Your task to perform on an android device: make emails show in primary in the gmail app Image 0: 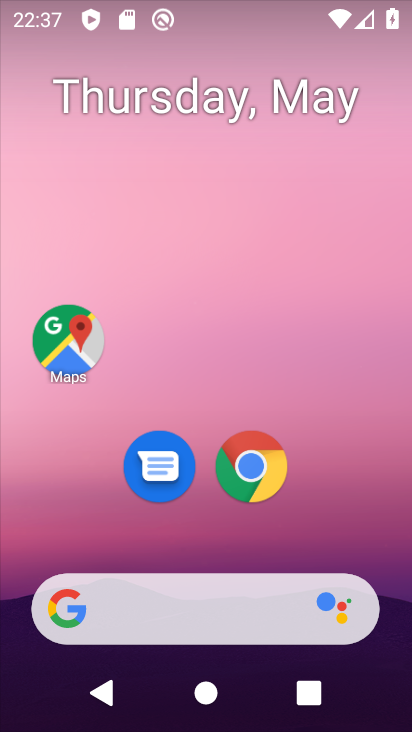
Step 0: drag from (343, 484) to (312, 42)
Your task to perform on an android device: make emails show in primary in the gmail app Image 1: 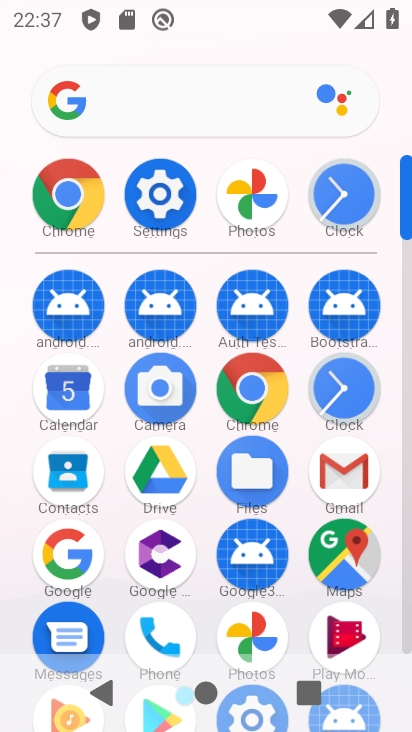
Step 1: click (350, 483)
Your task to perform on an android device: make emails show in primary in the gmail app Image 2: 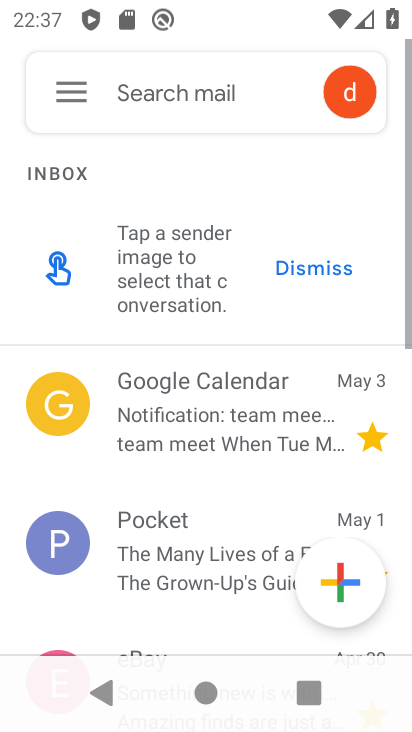
Step 2: click (72, 90)
Your task to perform on an android device: make emails show in primary in the gmail app Image 3: 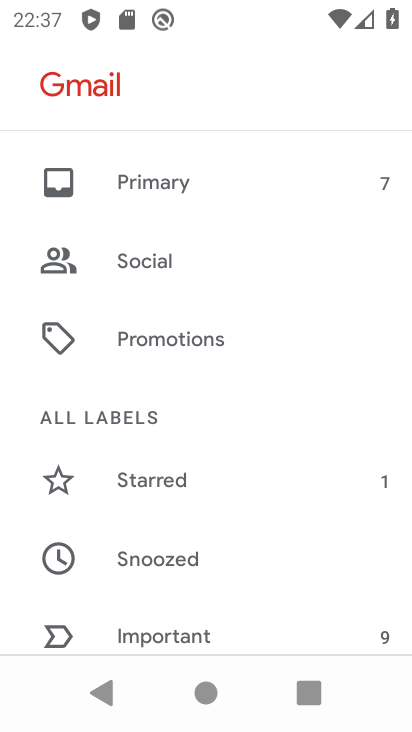
Step 3: drag from (205, 588) to (346, 111)
Your task to perform on an android device: make emails show in primary in the gmail app Image 4: 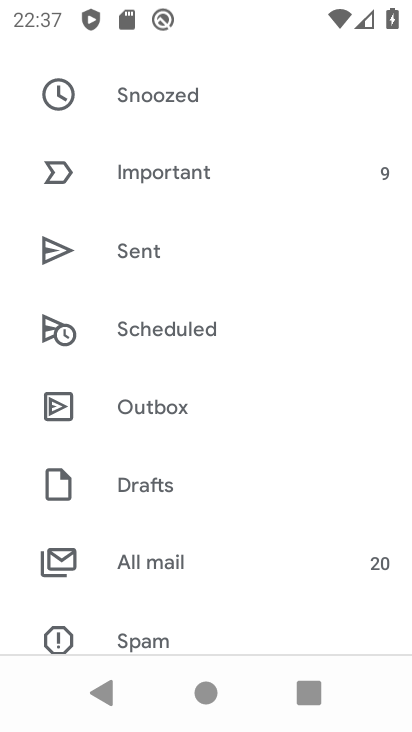
Step 4: drag from (186, 554) to (277, 154)
Your task to perform on an android device: make emails show in primary in the gmail app Image 5: 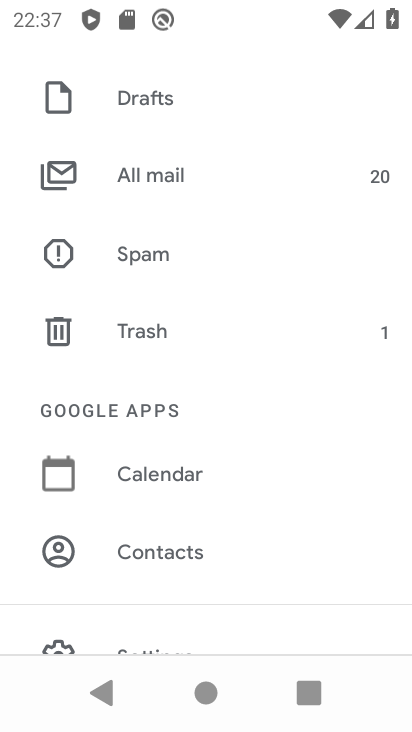
Step 5: drag from (179, 525) to (257, 346)
Your task to perform on an android device: make emails show in primary in the gmail app Image 6: 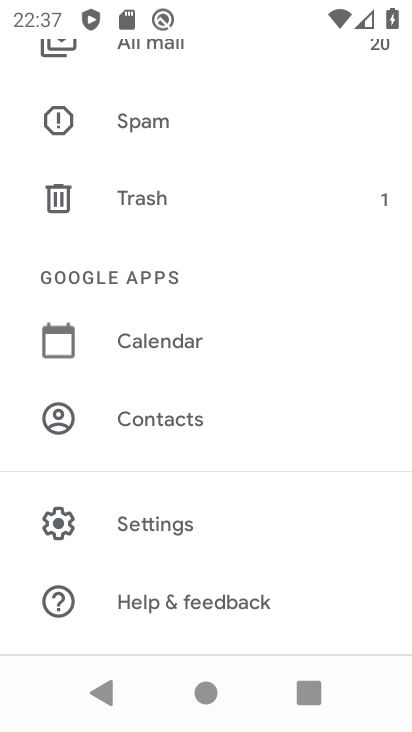
Step 6: click (156, 546)
Your task to perform on an android device: make emails show in primary in the gmail app Image 7: 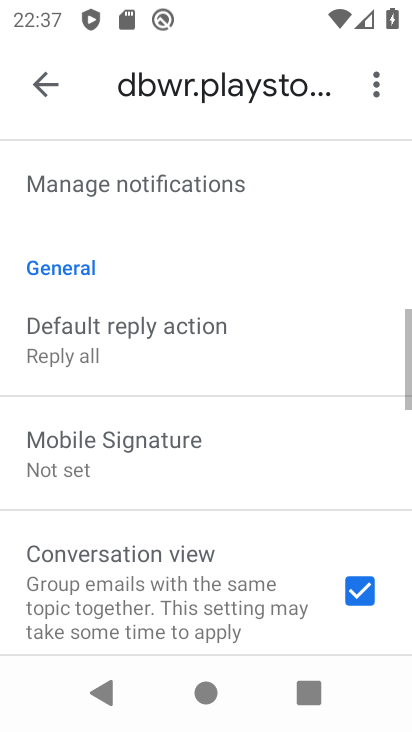
Step 7: drag from (166, 586) to (320, 717)
Your task to perform on an android device: make emails show in primary in the gmail app Image 8: 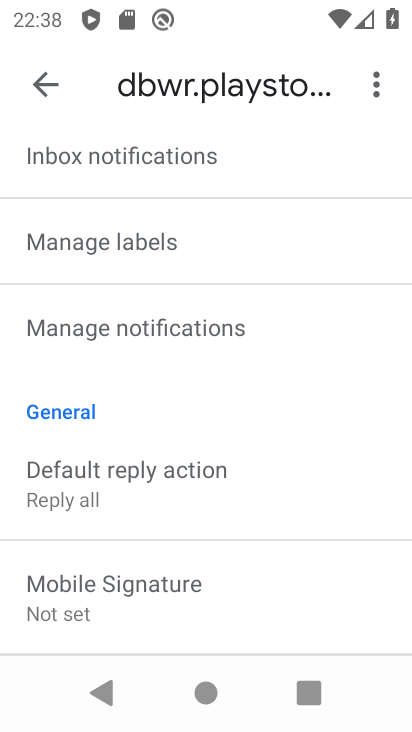
Step 8: drag from (176, 355) to (183, 727)
Your task to perform on an android device: make emails show in primary in the gmail app Image 9: 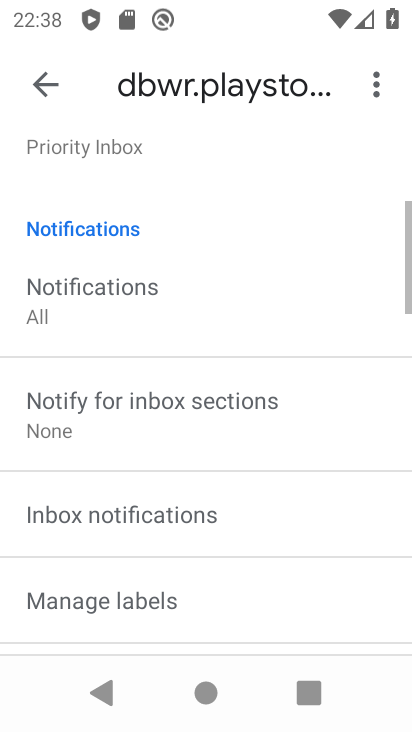
Step 9: drag from (222, 272) to (234, 663)
Your task to perform on an android device: make emails show in primary in the gmail app Image 10: 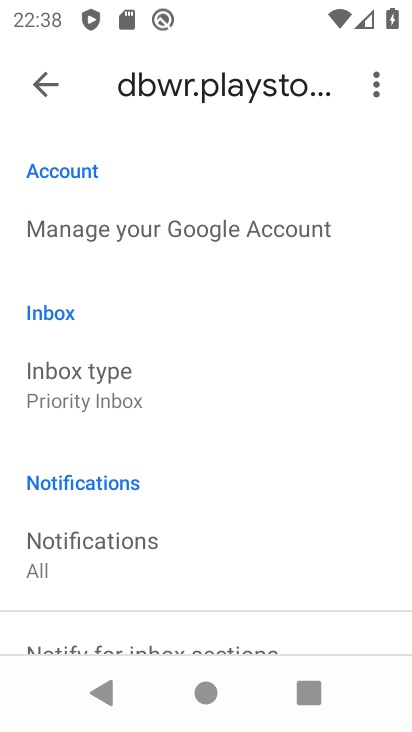
Step 10: click (124, 381)
Your task to perform on an android device: make emails show in primary in the gmail app Image 11: 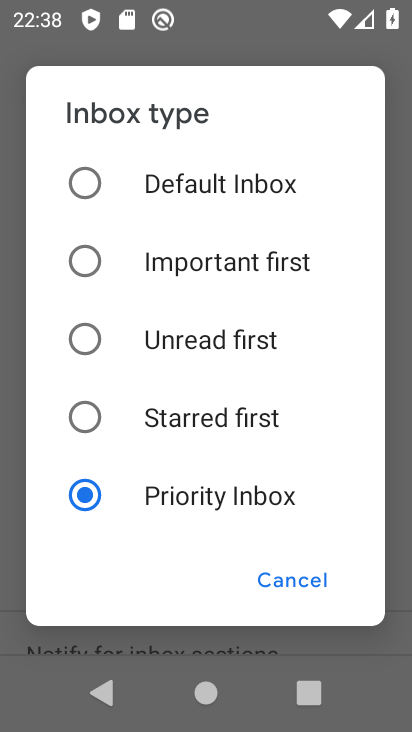
Step 11: click (172, 187)
Your task to perform on an android device: make emails show in primary in the gmail app Image 12: 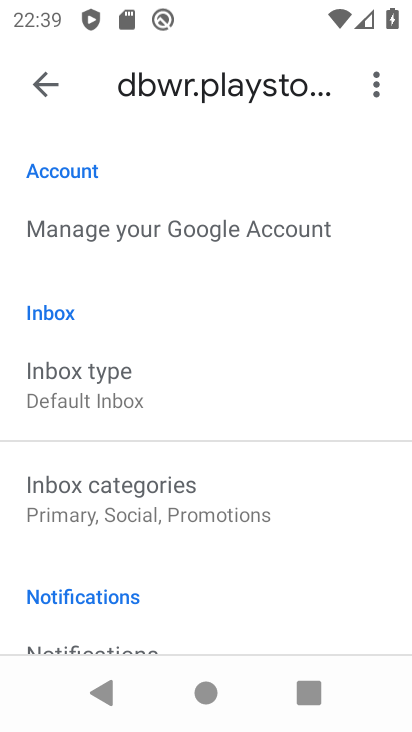
Step 12: click (185, 504)
Your task to perform on an android device: make emails show in primary in the gmail app Image 13: 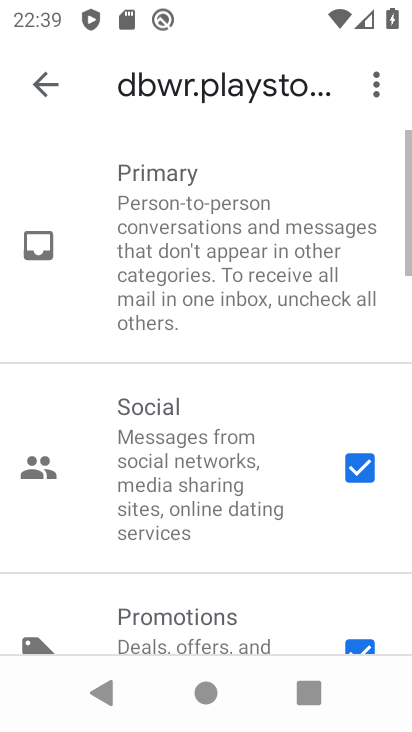
Step 13: task complete